Your task to perform on an android device: Open the map Image 0: 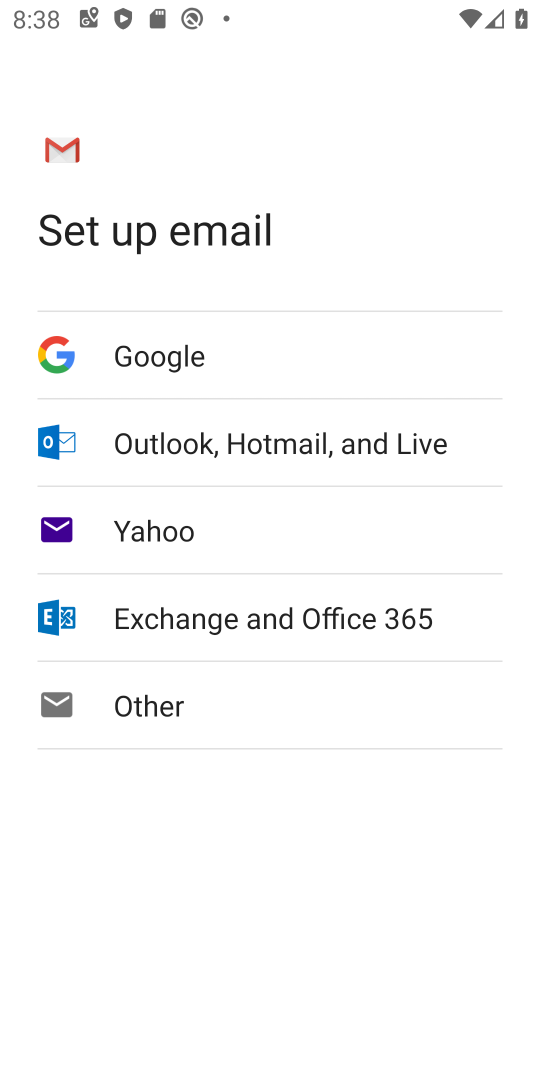
Step 0: press home button
Your task to perform on an android device: Open the map Image 1: 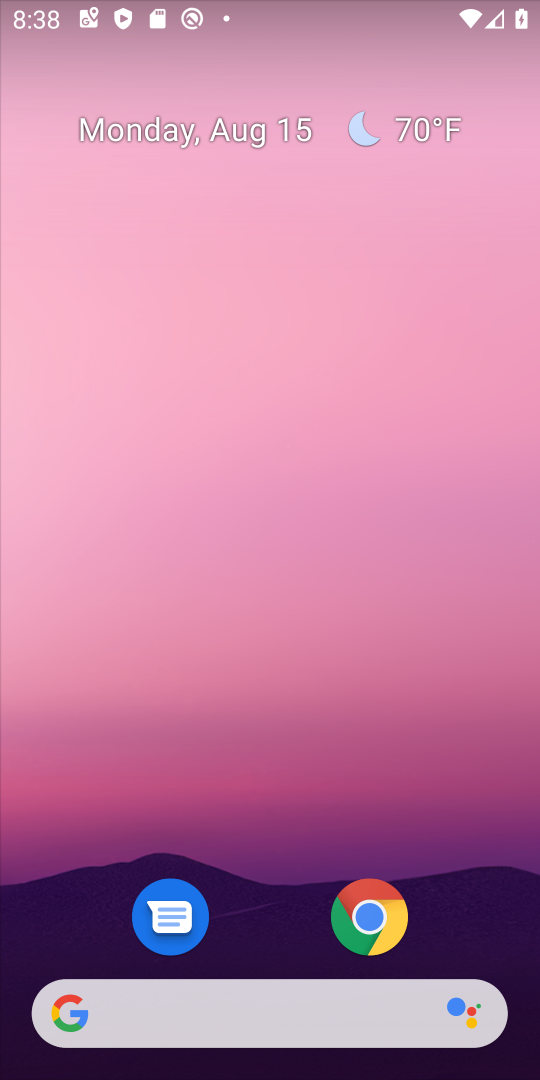
Step 1: drag from (269, 827) to (338, 1)
Your task to perform on an android device: Open the map Image 2: 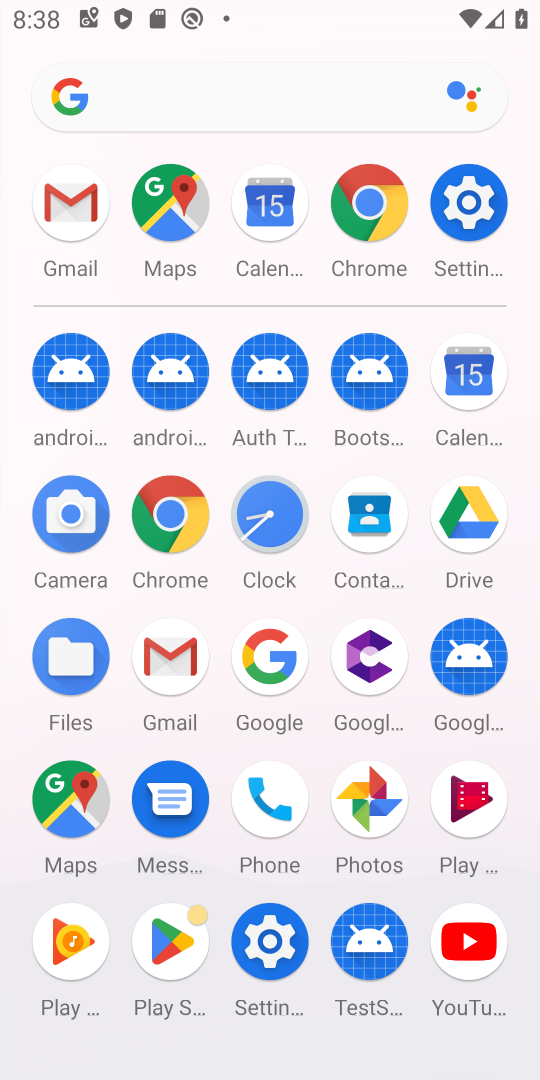
Step 2: click (182, 222)
Your task to perform on an android device: Open the map Image 3: 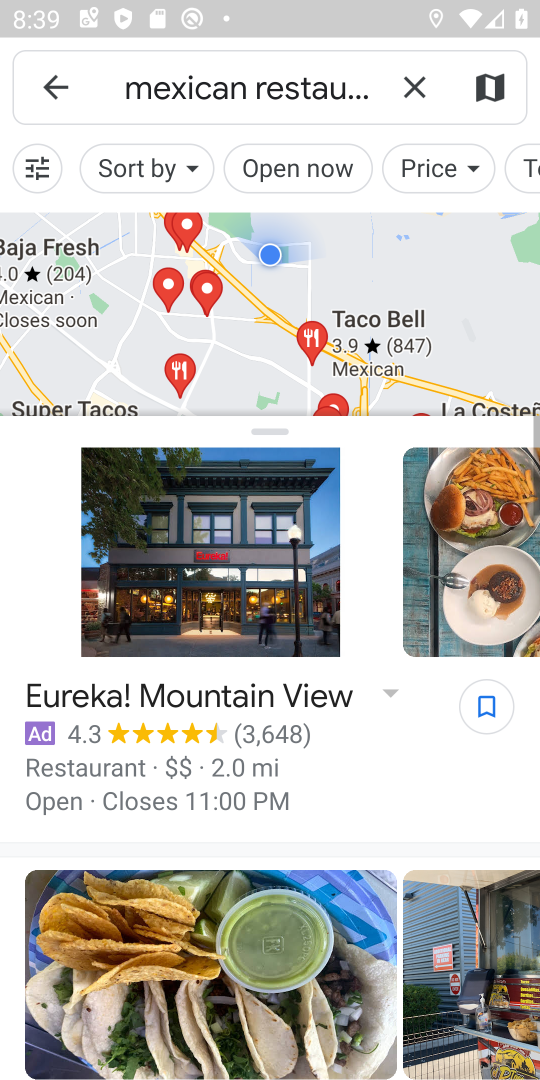
Step 3: click (414, 76)
Your task to perform on an android device: Open the map Image 4: 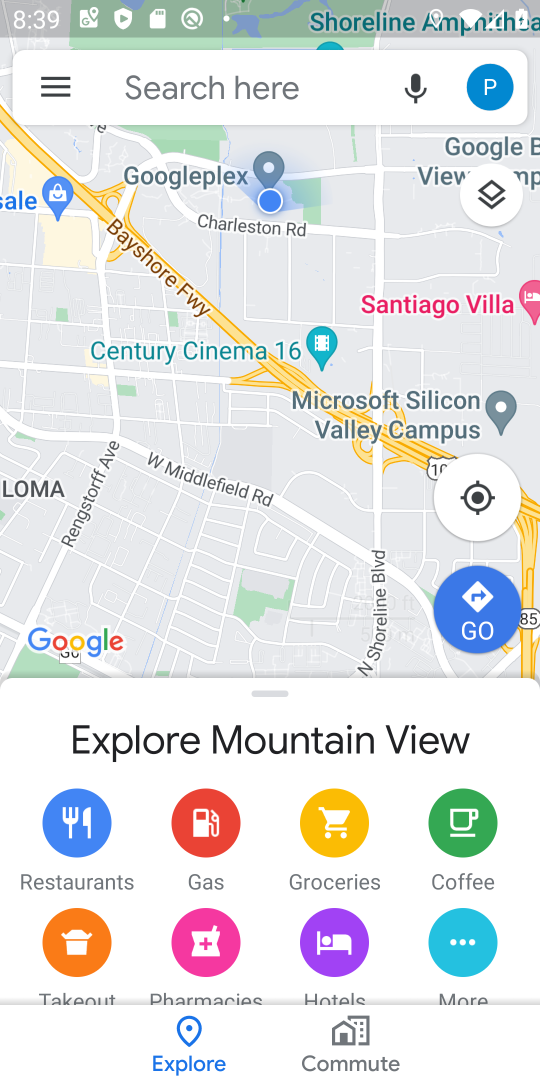
Step 4: task complete